Your task to perform on an android device: create a new album in the google photos Image 0: 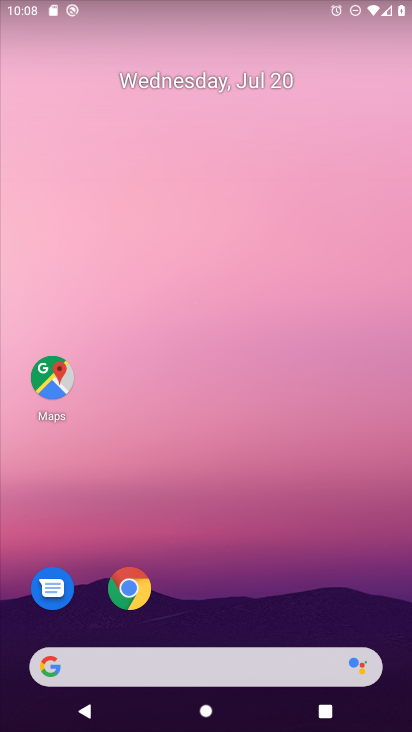
Step 0: click (198, 46)
Your task to perform on an android device: create a new album in the google photos Image 1: 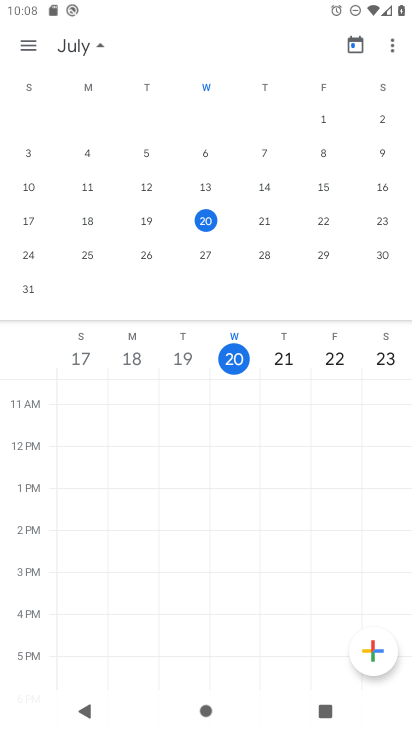
Step 1: press home button
Your task to perform on an android device: create a new album in the google photos Image 2: 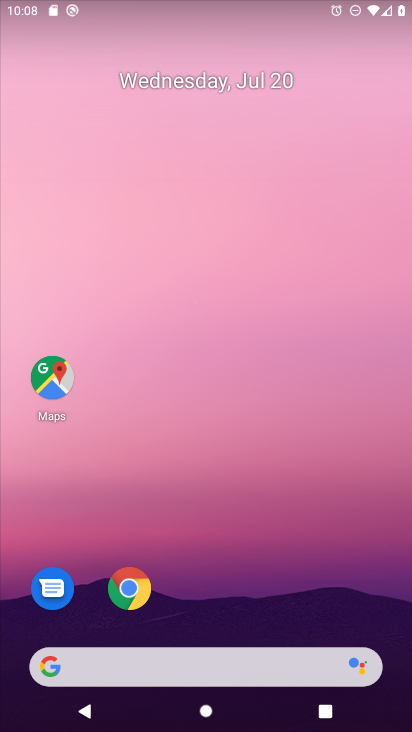
Step 2: drag from (225, 640) to (152, 164)
Your task to perform on an android device: create a new album in the google photos Image 3: 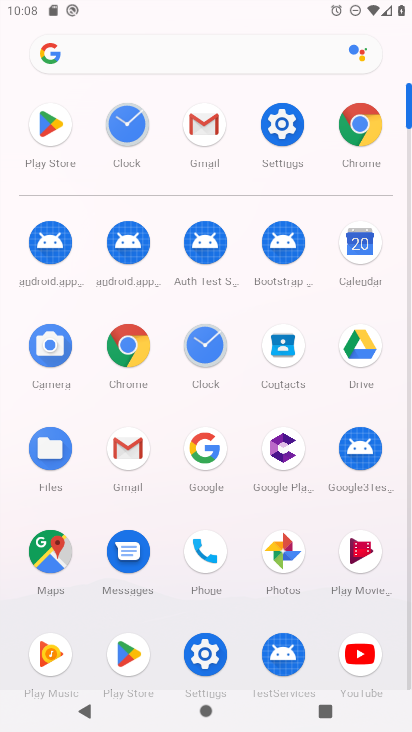
Step 3: click (290, 552)
Your task to perform on an android device: create a new album in the google photos Image 4: 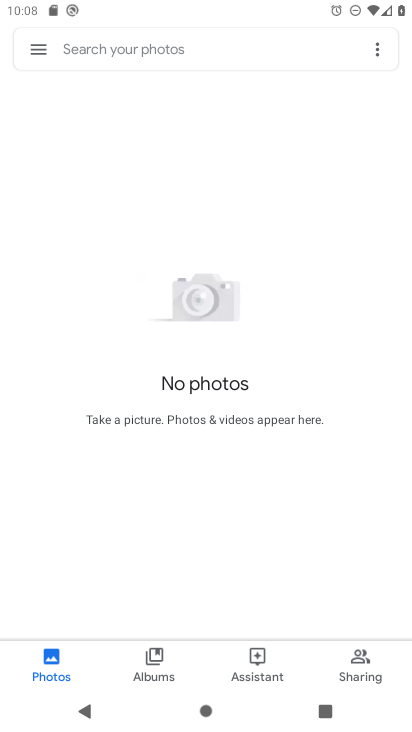
Step 4: task complete